Your task to perform on an android device: Go to Reddit.com Image 0: 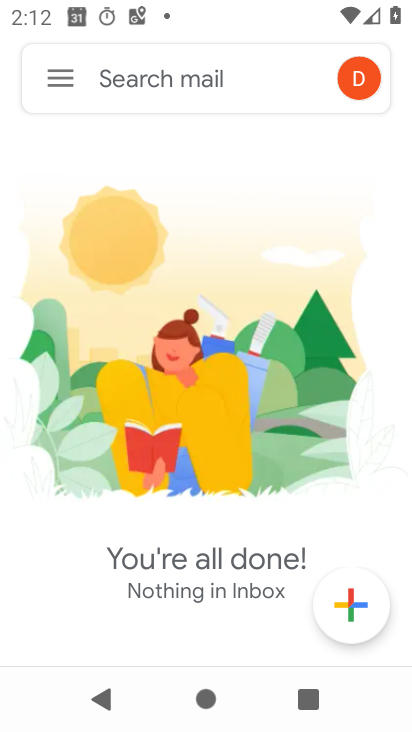
Step 0: press home button
Your task to perform on an android device: Go to Reddit.com Image 1: 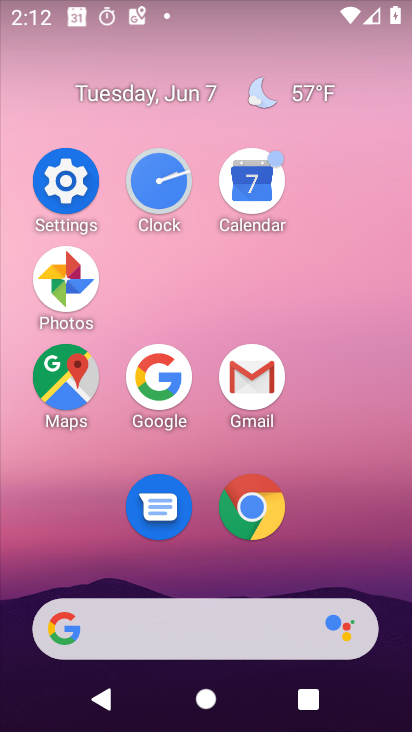
Step 1: click (267, 365)
Your task to perform on an android device: Go to Reddit.com Image 2: 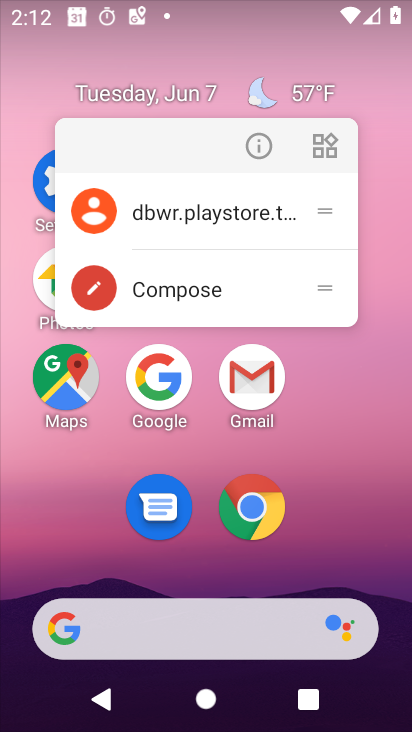
Step 2: click (241, 514)
Your task to perform on an android device: Go to Reddit.com Image 3: 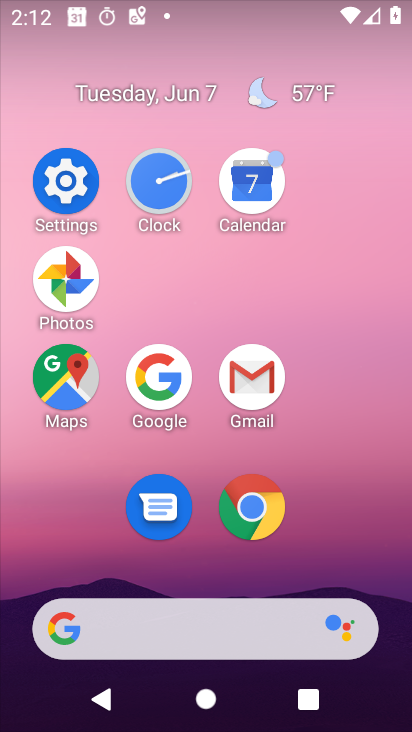
Step 3: click (280, 511)
Your task to perform on an android device: Go to Reddit.com Image 4: 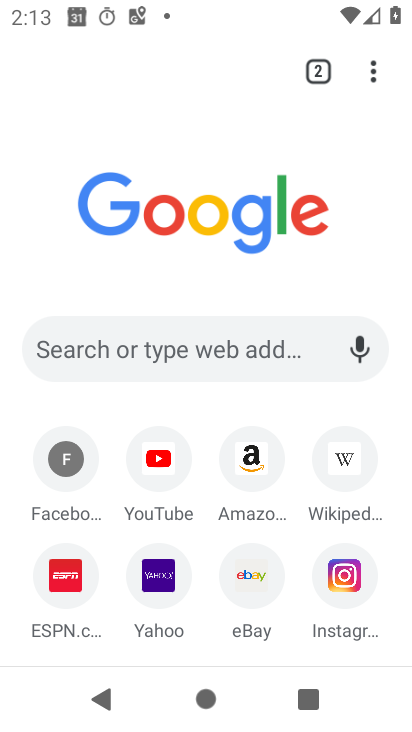
Step 4: click (125, 332)
Your task to perform on an android device: Go to Reddit.com Image 5: 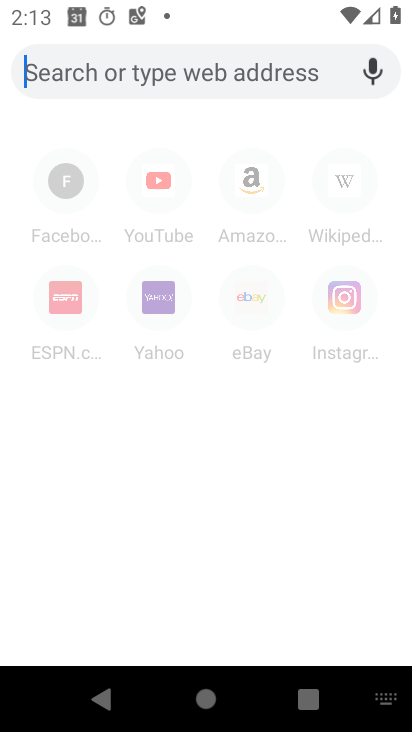
Step 5: type "reddit"
Your task to perform on an android device: Go to Reddit.com Image 6: 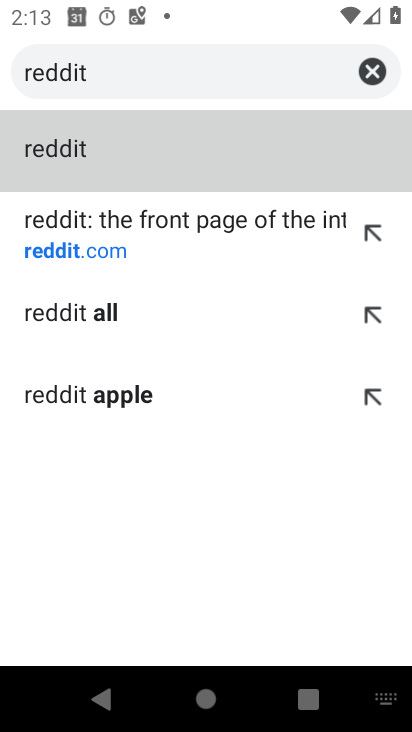
Step 6: click (124, 250)
Your task to perform on an android device: Go to Reddit.com Image 7: 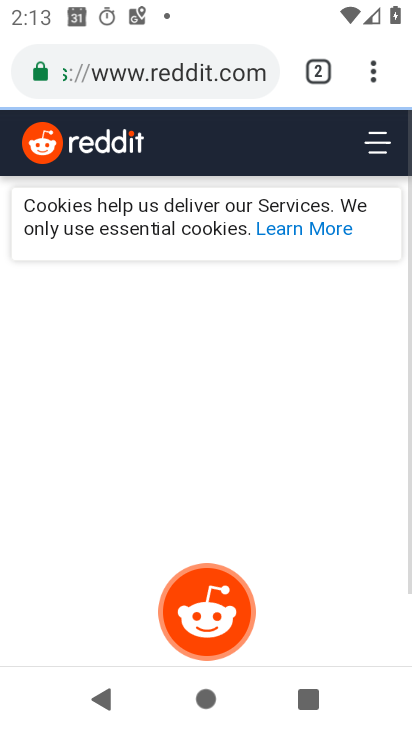
Step 7: task complete